Your task to perform on an android device: turn off smart reply in the gmail app Image 0: 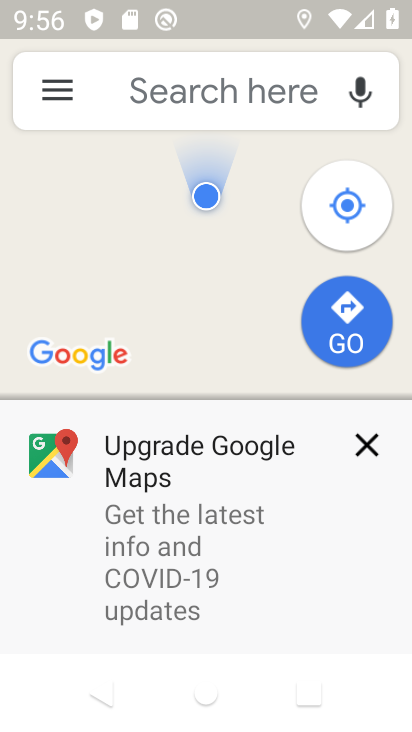
Step 0: press home button
Your task to perform on an android device: turn off smart reply in the gmail app Image 1: 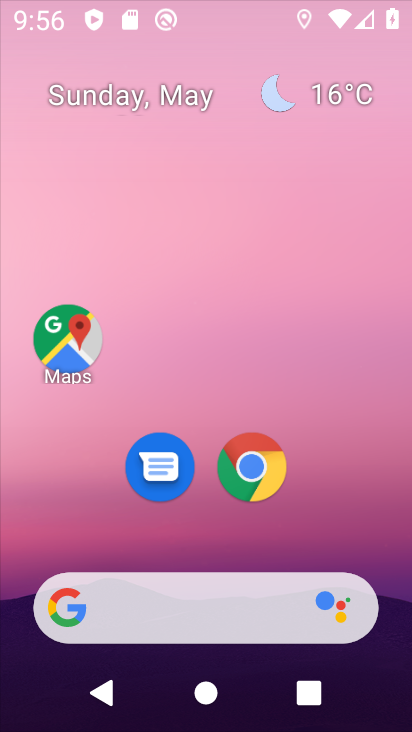
Step 1: drag from (317, 496) to (299, 123)
Your task to perform on an android device: turn off smart reply in the gmail app Image 2: 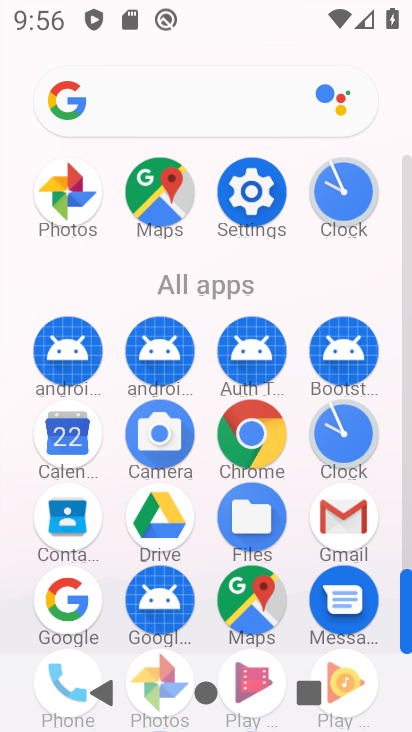
Step 2: drag from (289, 555) to (279, 256)
Your task to perform on an android device: turn off smart reply in the gmail app Image 3: 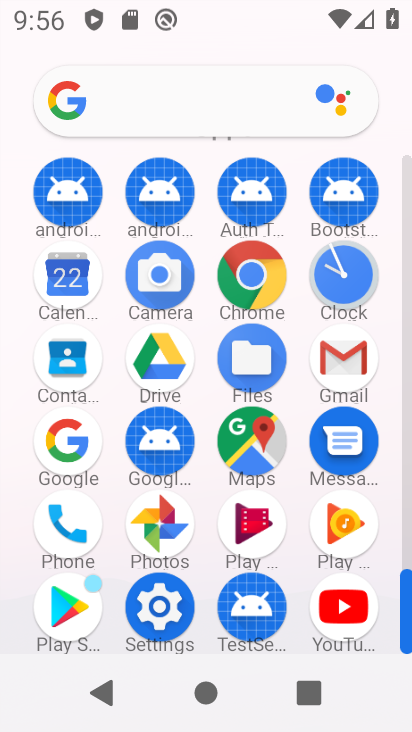
Step 3: click (353, 375)
Your task to perform on an android device: turn off smart reply in the gmail app Image 4: 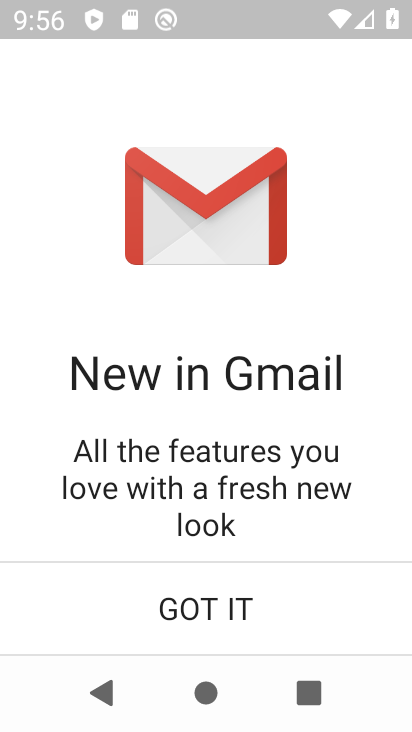
Step 4: click (248, 608)
Your task to perform on an android device: turn off smart reply in the gmail app Image 5: 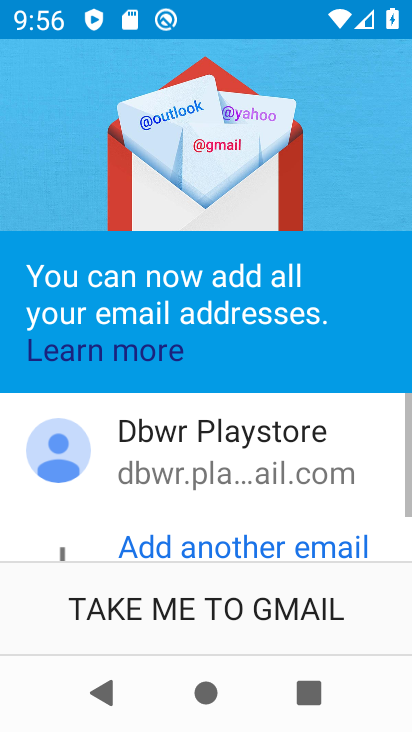
Step 5: click (251, 607)
Your task to perform on an android device: turn off smart reply in the gmail app Image 6: 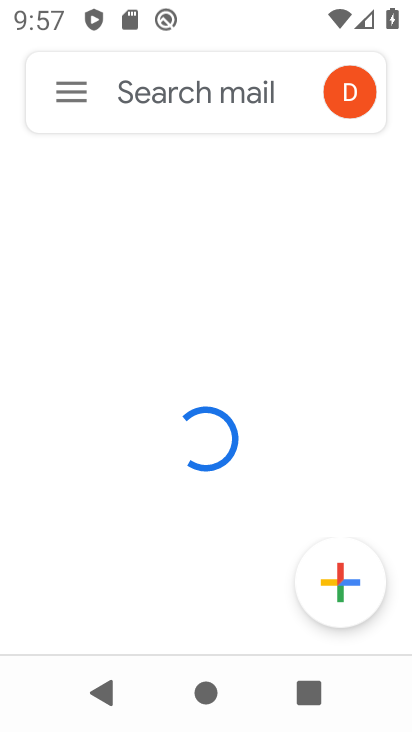
Step 6: click (75, 86)
Your task to perform on an android device: turn off smart reply in the gmail app Image 7: 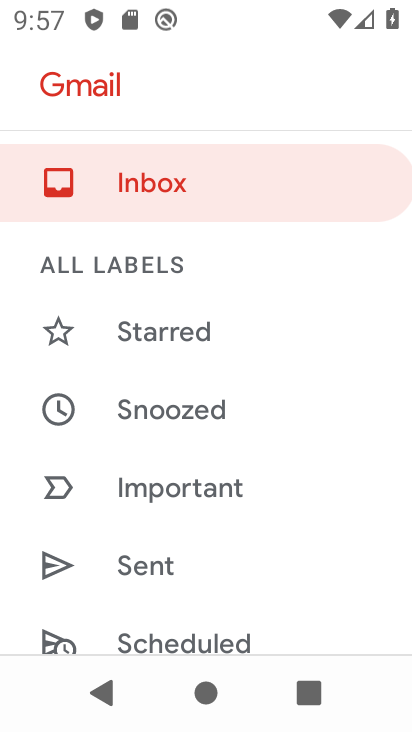
Step 7: drag from (284, 633) to (274, 264)
Your task to perform on an android device: turn off smart reply in the gmail app Image 8: 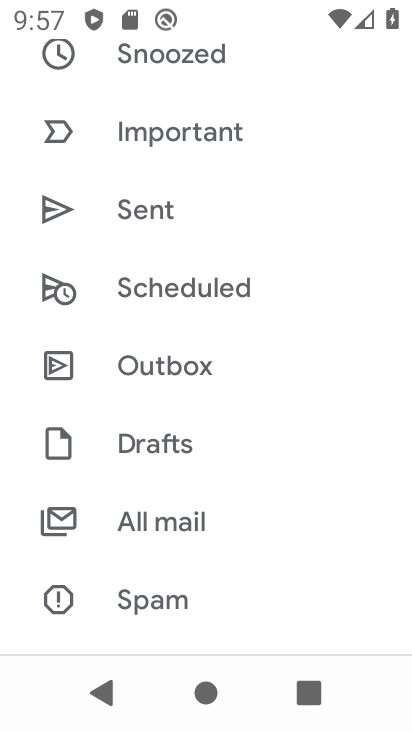
Step 8: drag from (256, 596) to (264, 226)
Your task to perform on an android device: turn off smart reply in the gmail app Image 9: 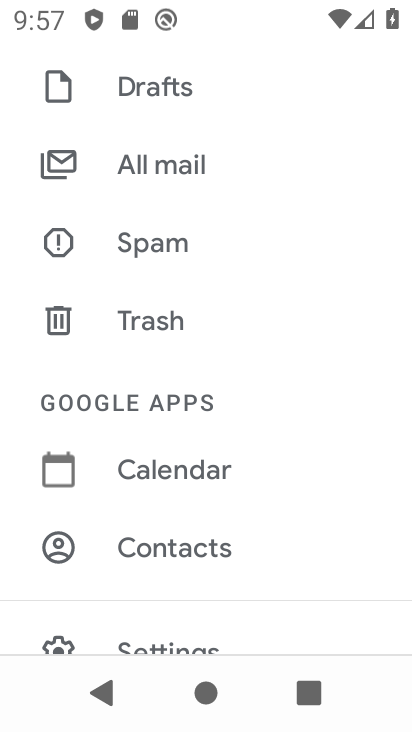
Step 9: drag from (267, 573) to (275, 177)
Your task to perform on an android device: turn off smart reply in the gmail app Image 10: 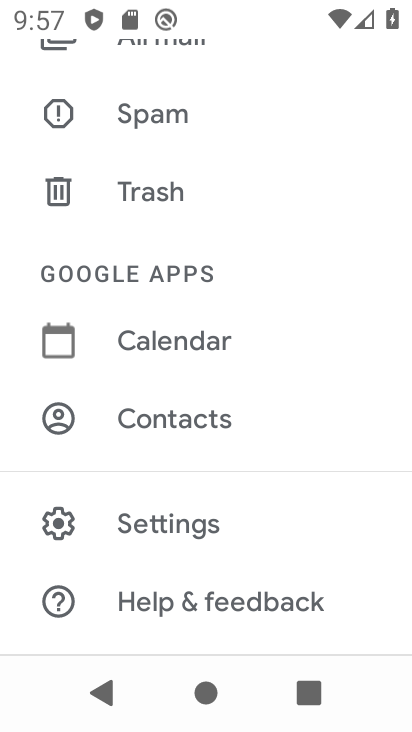
Step 10: click (219, 533)
Your task to perform on an android device: turn off smart reply in the gmail app Image 11: 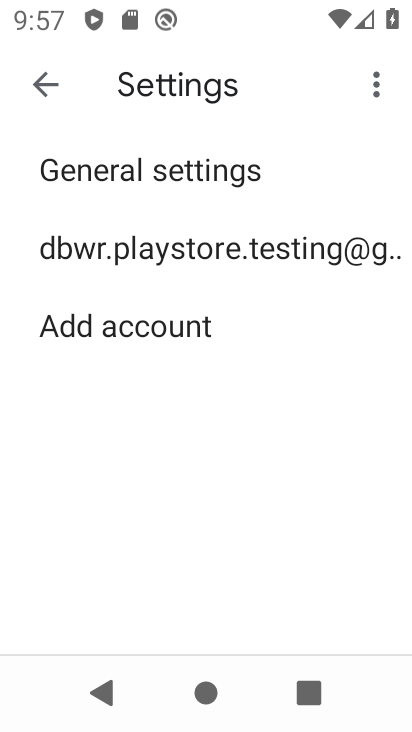
Step 11: click (297, 237)
Your task to perform on an android device: turn off smart reply in the gmail app Image 12: 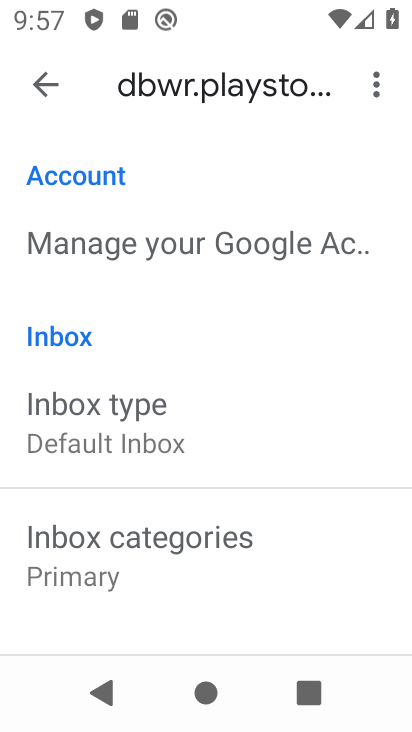
Step 12: drag from (309, 583) to (304, 205)
Your task to perform on an android device: turn off smart reply in the gmail app Image 13: 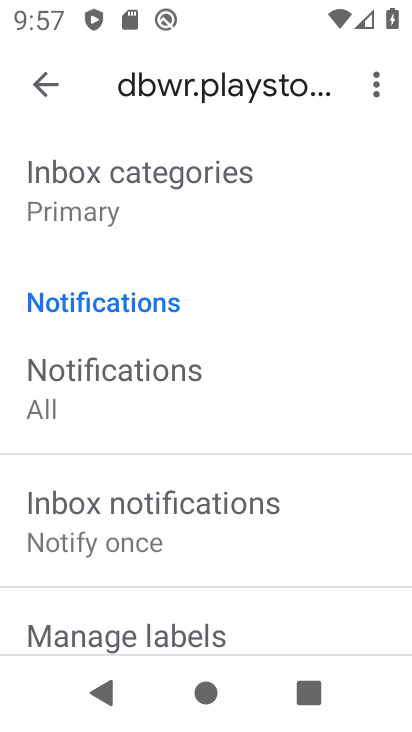
Step 13: drag from (314, 567) to (265, 241)
Your task to perform on an android device: turn off smart reply in the gmail app Image 14: 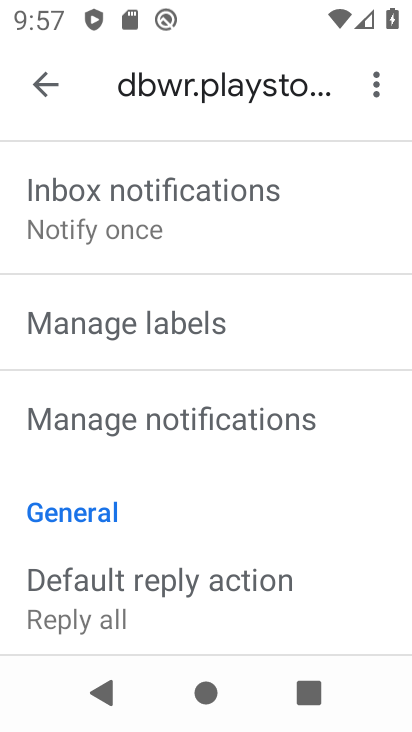
Step 14: drag from (326, 593) to (331, 230)
Your task to perform on an android device: turn off smart reply in the gmail app Image 15: 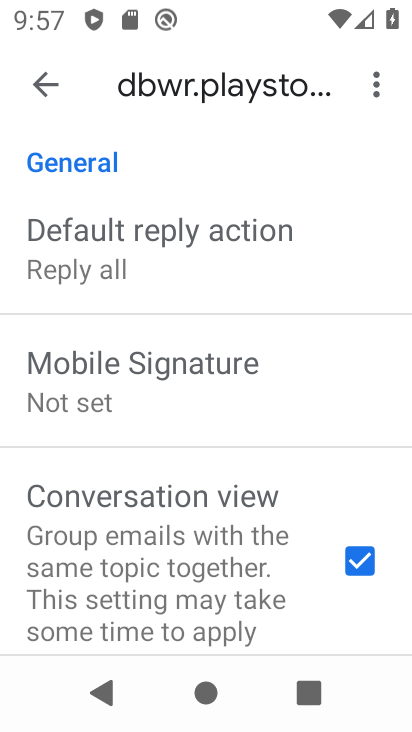
Step 15: drag from (340, 199) to (268, 548)
Your task to perform on an android device: turn off smart reply in the gmail app Image 16: 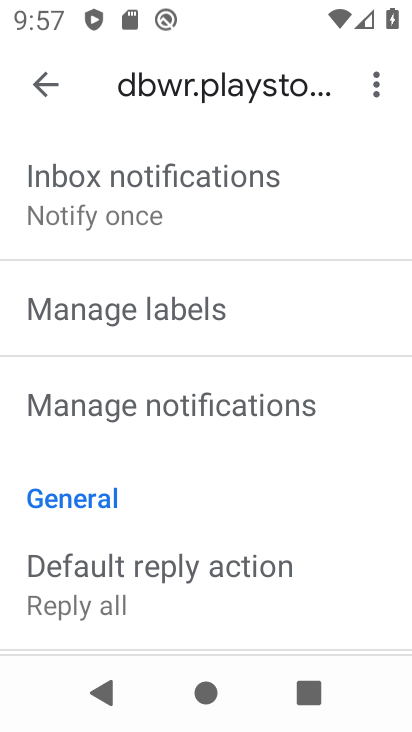
Step 16: drag from (286, 464) to (286, 181)
Your task to perform on an android device: turn off smart reply in the gmail app Image 17: 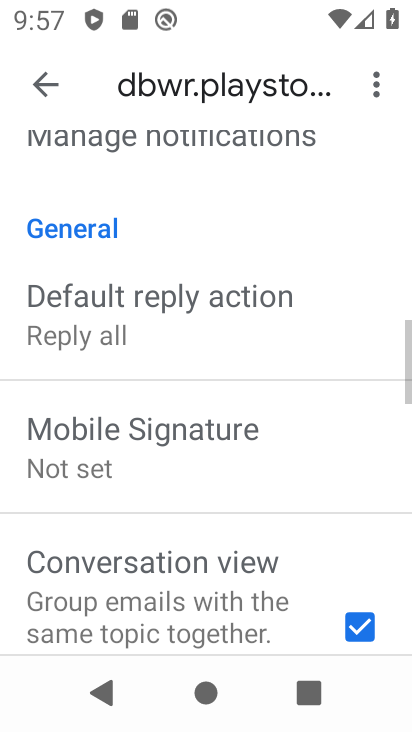
Step 17: drag from (283, 572) to (291, 241)
Your task to perform on an android device: turn off smart reply in the gmail app Image 18: 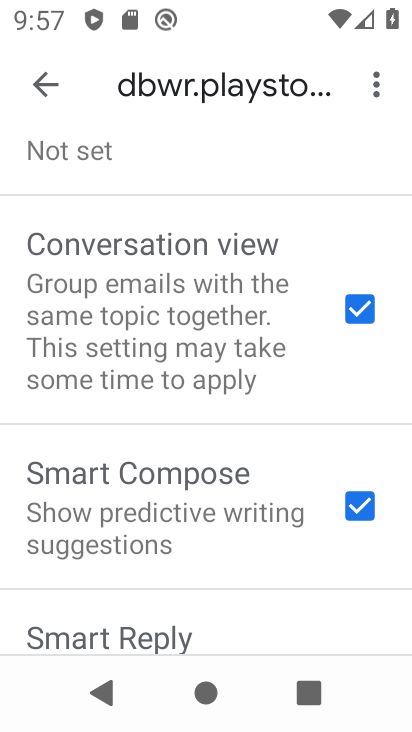
Step 18: drag from (299, 594) to (308, 299)
Your task to perform on an android device: turn off smart reply in the gmail app Image 19: 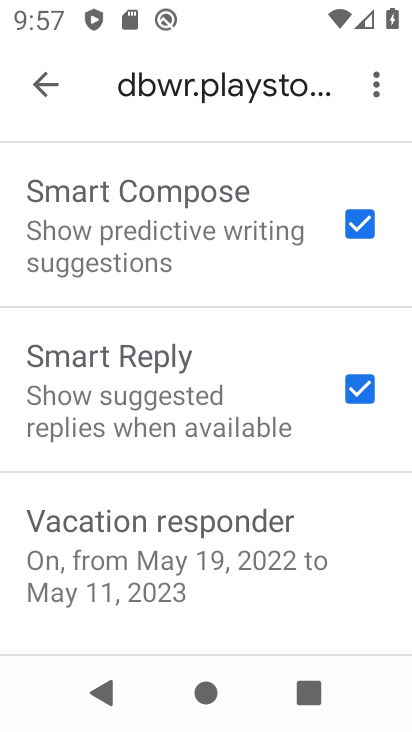
Step 19: click (363, 399)
Your task to perform on an android device: turn off smart reply in the gmail app Image 20: 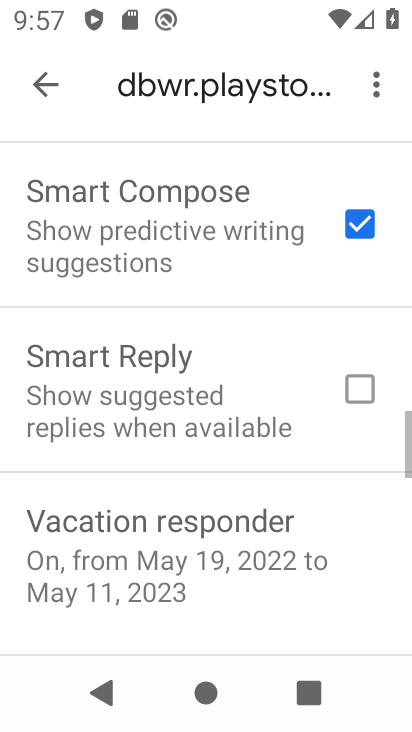
Step 20: task complete